Your task to perform on an android device: Open Youtube and go to "Your channel" Image 0: 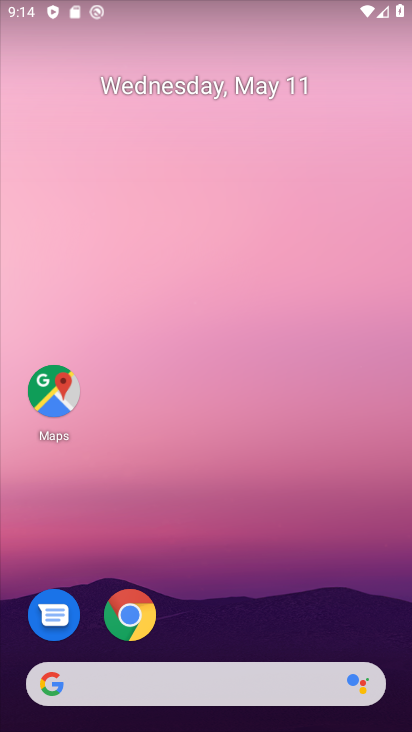
Step 0: drag from (249, 529) to (305, 10)
Your task to perform on an android device: Open Youtube and go to "Your channel" Image 1: 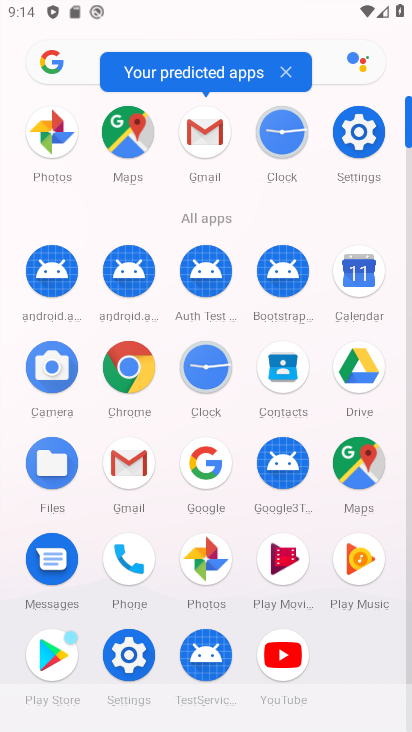
Step 1: drag from (392, 653) to (364, 387)
Your task to perform on an android device: Open Youtube and go to "Your channel" Image 2: 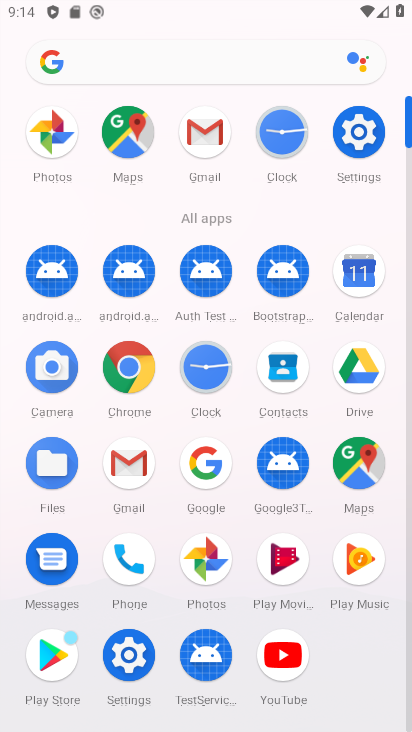
Step 2: click (296, 638)
Your task to perform on an android device: Open Youtube and go to "Your channel" Image 3: 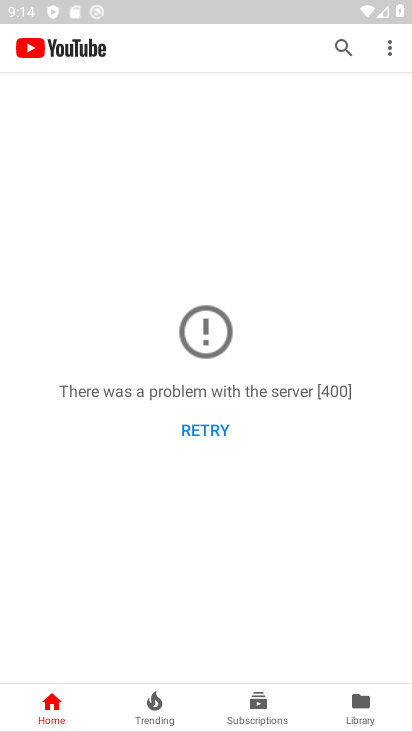
Step 3: click (396, 57)
Your task to perform on an android device: Open Youtube and go to "Your channel" Image 4: 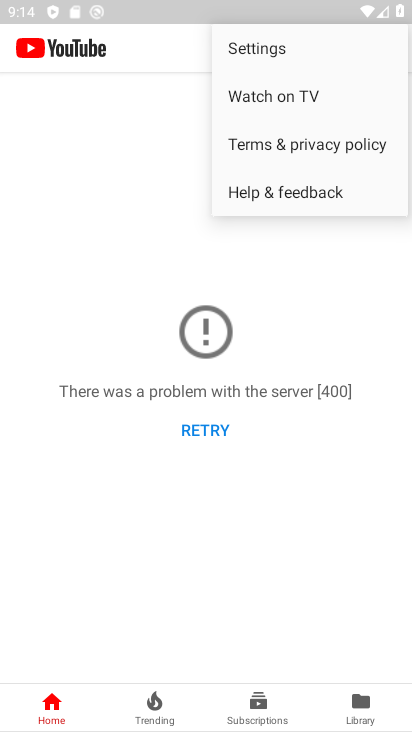
Step 4: click (259, 59)
Your task to perform on an android device: Open Youtube and go to "Your channel" Image 5: 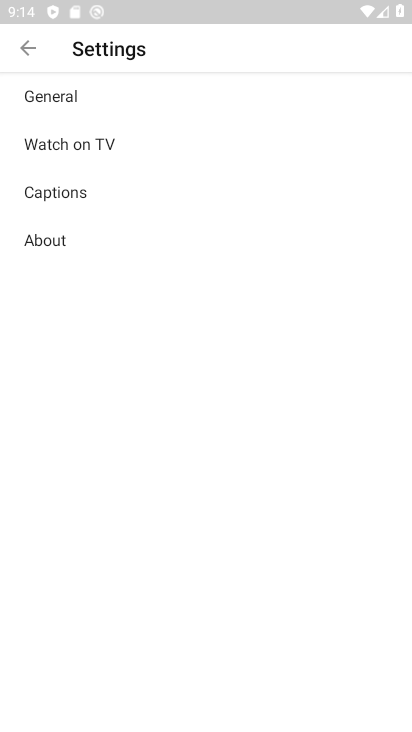
Step 5: task complete